Your task to perform on an android device: turn notification dots off Image 0: 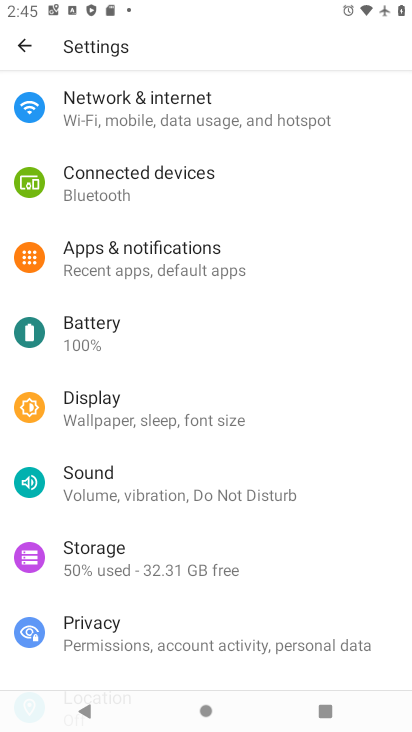
Step 0: drag from (204, 277) to (185, 670)
Your task to perform on an android device: turn notification dots off Image 1: 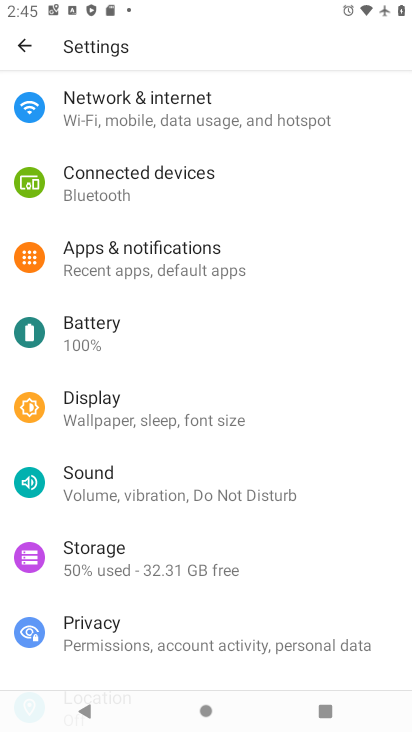
Step 1: click (151, 264)
Your task to perform on an android device: turn notification dots off Image 2: 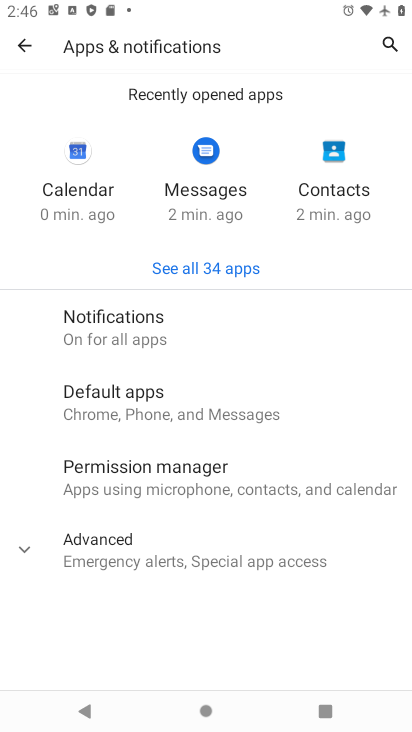
Step 2: click (179, 330)
Your task to perform on an android device: turn notification dots off Image 3: 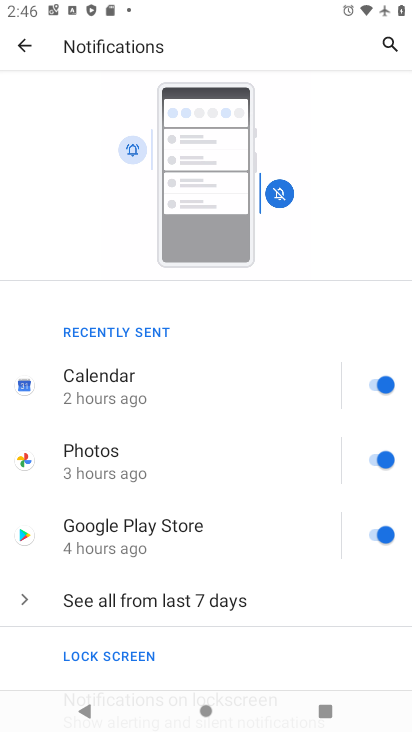
Step 3: drag from (188, 610) to (325, 164)
Your task to perform on an android device: turn notification dots off Image 4: 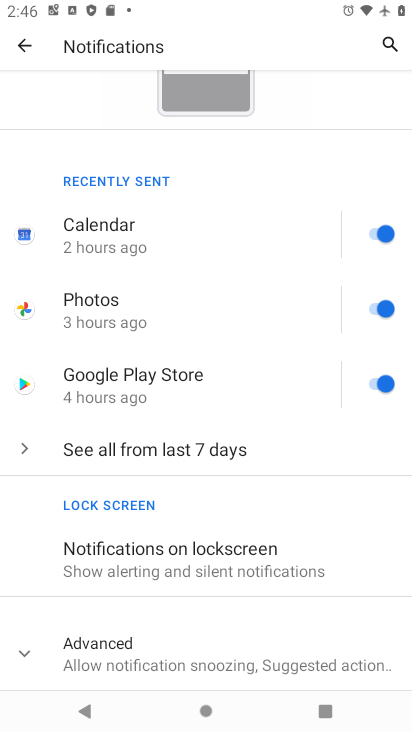
Step 4: click (173, 641)
Your task to perform on an android device: turn notification dots off Image 5: 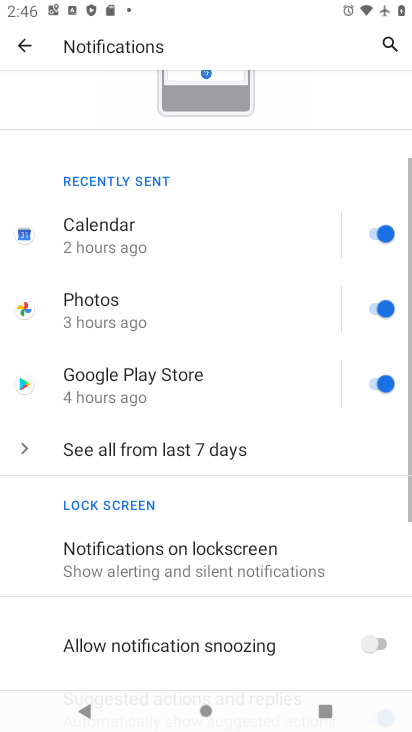
Step 5: drag from (174, 640) to (372, 136)
Your task to perform on an android device: turn notification dots off Image 6: 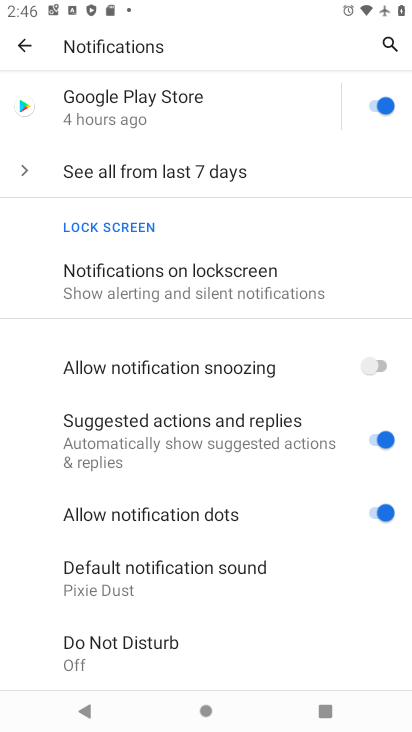
Step 6: click (273, 516)
Your task to perform on an android device: turn notification dots off Image 7: 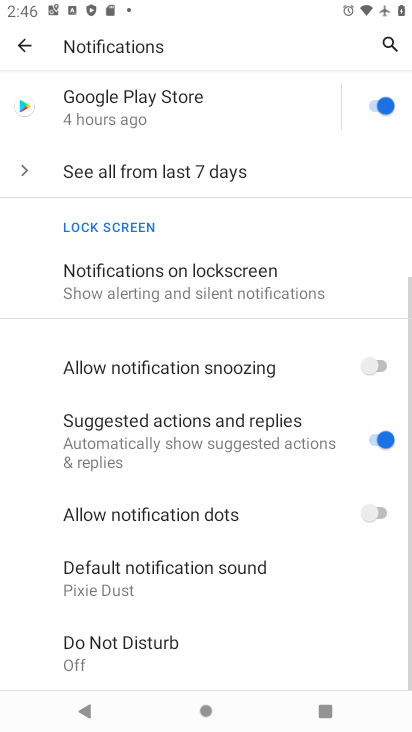
Step 7: task complete